Your task to perform on an android device: toggle pop-ups in chrome Image 0: 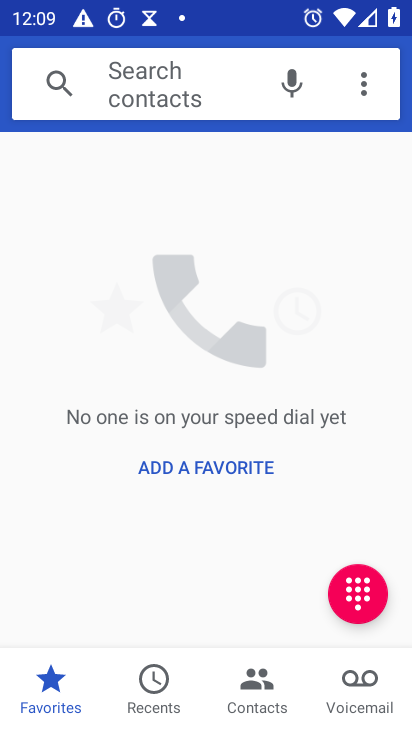
Step 0: press home button
Your task to perform on an android device: toggle pop-ups in chrome Image 1: 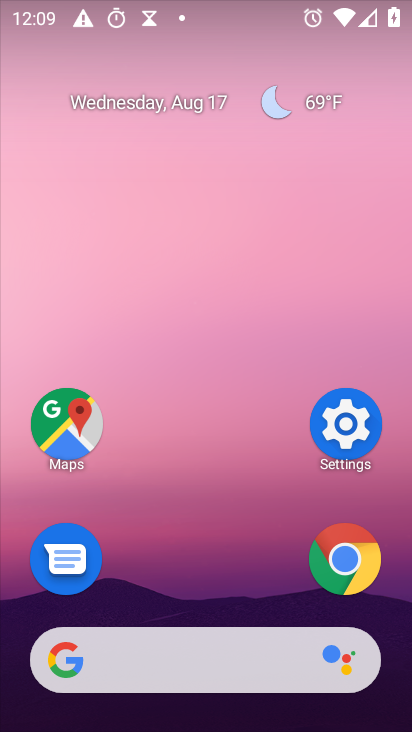
Step 1: click (330, 557)
Your task to perform on an android device: toggle pop-ups in chrome Image 2: 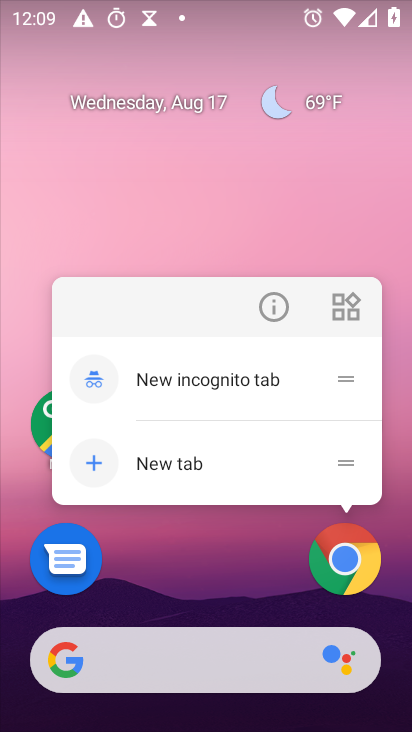
Step 2: click (348, 557)
Your task to perform on an android device: toggle pop-ups in chrome Image 3: 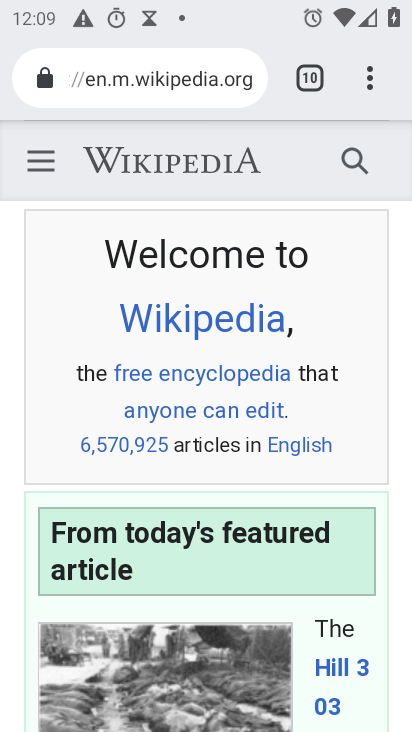
Step 3: drag from (363, 63) to (160, 620)
Your task to perform on an android device: toggle pop-ups in chrome Image 4: 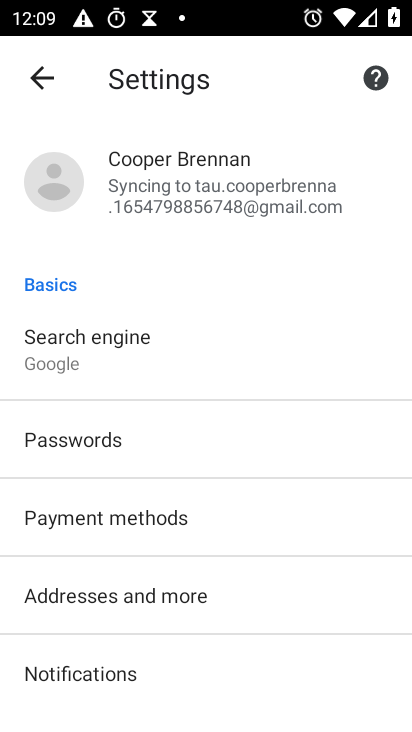
Step 4: drag from (239, 649) to (343, 248)
Your task to perform on an android device: toggle pop-ups in chrome Image 5: 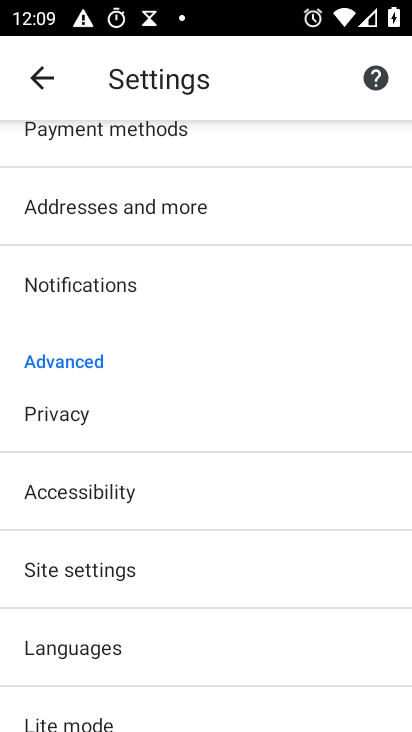
Step 5: click (110, 577)
Your task to perform on an android device: toggle pop-ups in chrome Image 6: 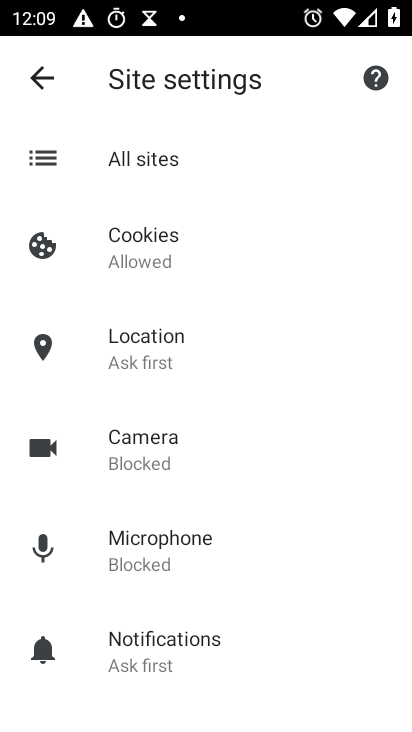
Step 6: drag from (217, 593) to (337, 117)
Your task to perform on an android device: toggle pop-ups in chrome Image 7: 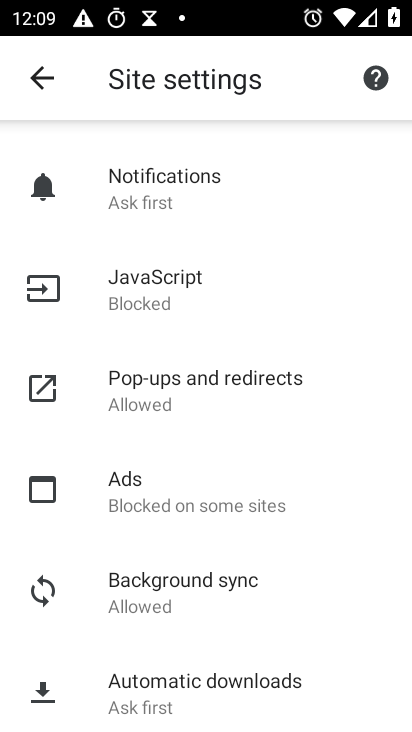
Step 7: click (163, 392)
Your task to perform on an android device: toggle pop-ups in chrome Image 8: 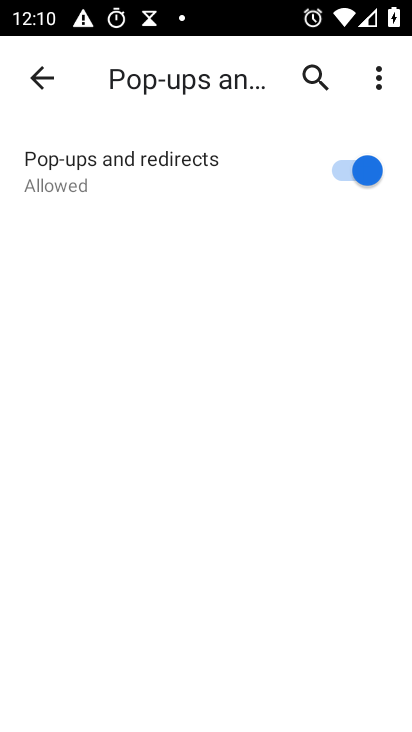
Step 8: click (347, 171)
Your task to perform on an android device: toggle pop-ups in chrome Image 9: 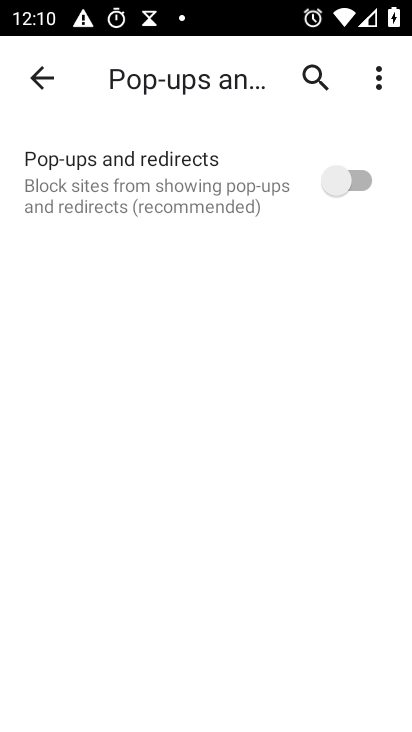
Step 9: task complete